Your task to perform on an android device: set the timer Image 0: 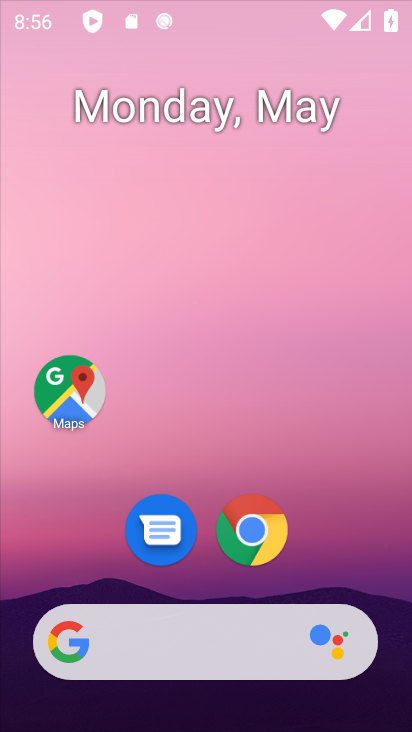
Step 0: drag from (343, 558) to (269, 55)
Your task to perform on an android device: set the timer Image 1: 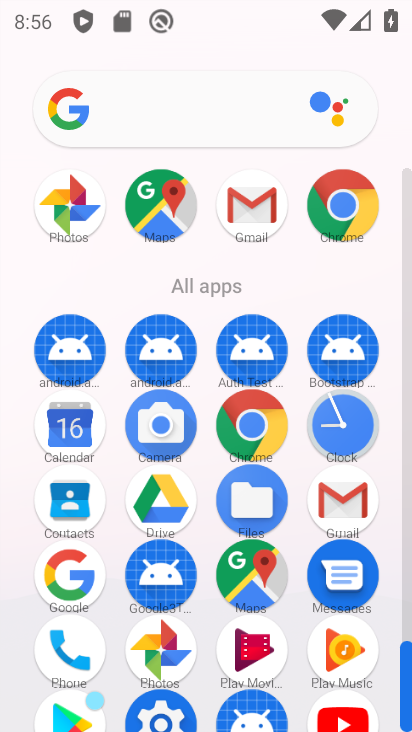
Step 1: drag from (28, 500) to (15, 211)
Your task to perform on an android device: set the timer Image 2: 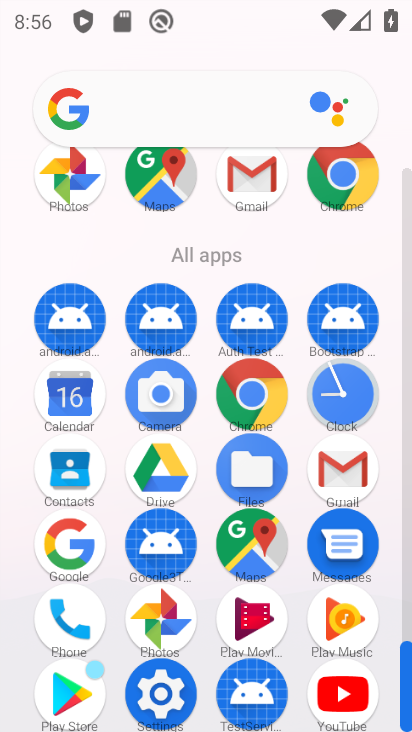
Step 2: click (165, 694)
Your task to perform on an android device: set the timer Image 3: 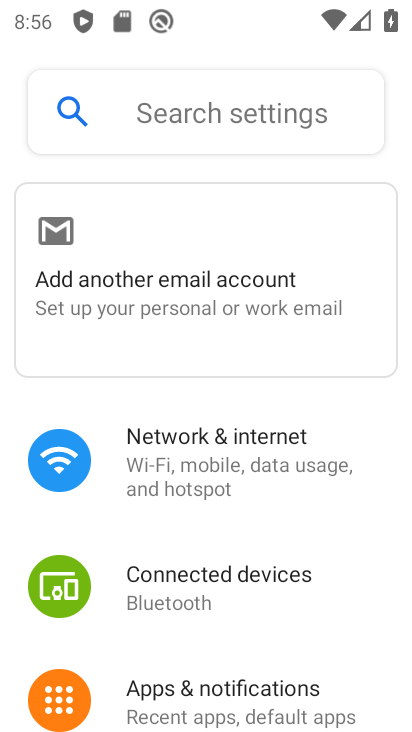
Step 3: press back button
Your task to perform on an android device: set the timer Image 4: 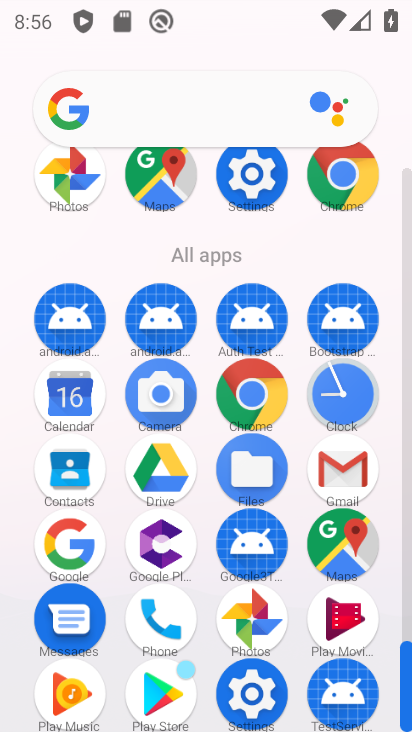
Step 4: click (347, 382)
Your task to perform on an android device: set the timer Image 5: 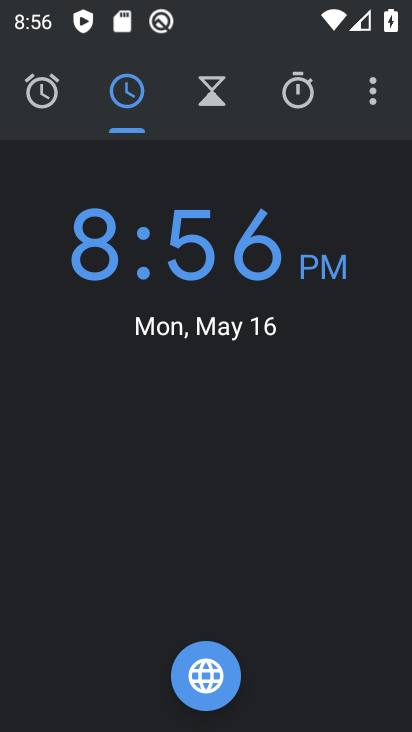
Step 5: click (226, 89)
Your task to perform on an android device: set the timer Image 6: 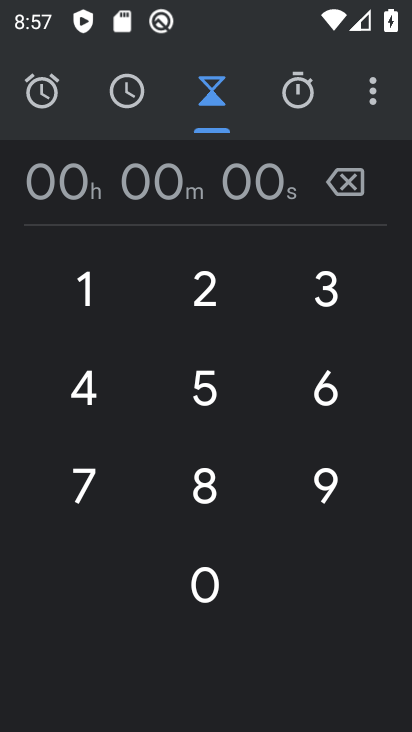
Step 6: click (205, 463)
Your task to perform on an android device: set the timer Image 7: 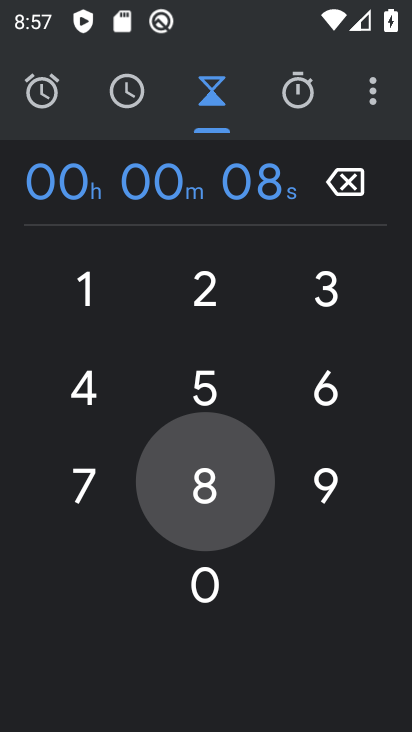
Step 7: click (190, 374)
Your task to perform on an android device: set the timer Image 8: 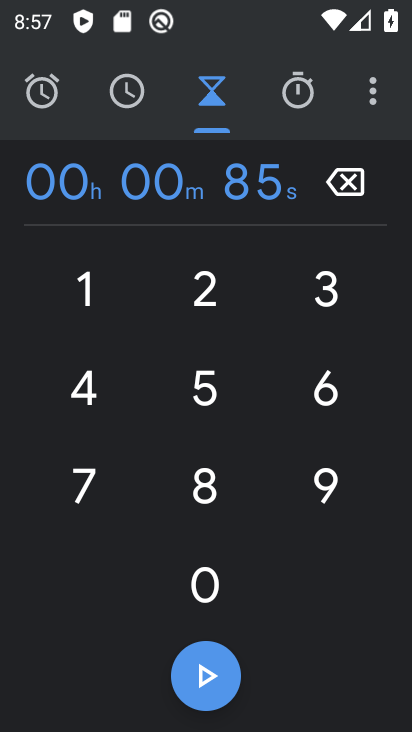
Step 8: click (204, 300)
Your task to perform on an android device: set the timer Image 9: 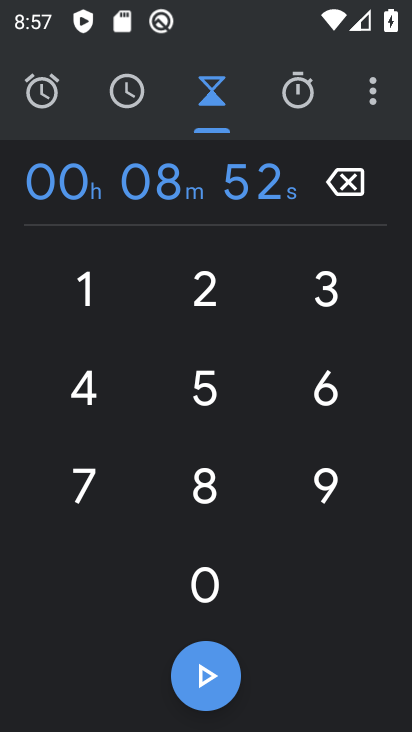
Step 9: click (326, 467)
Your task to perform on an android device: set the timer Image 10: 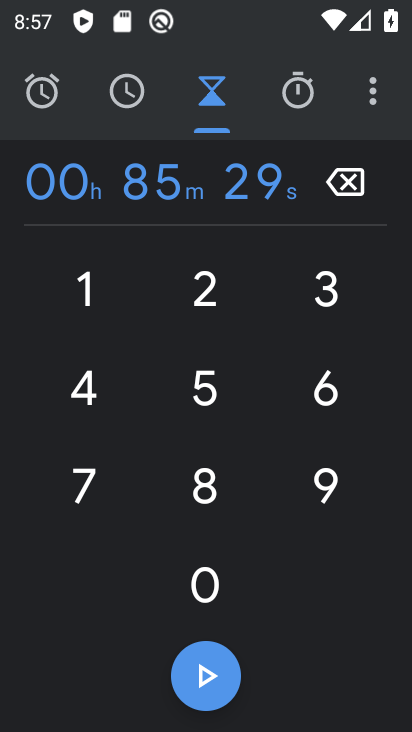
Step 10: click (217, 652)
Your task to perform on an android device: set the timer Image 11: 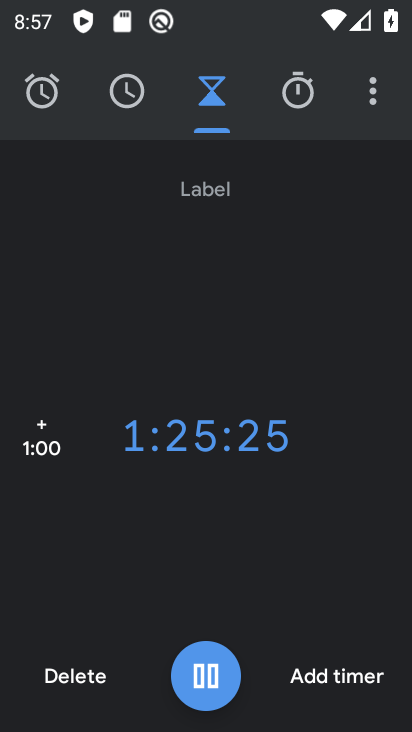
Step 11: task complete